Your task to perform on an android device: Open maps Image 0: 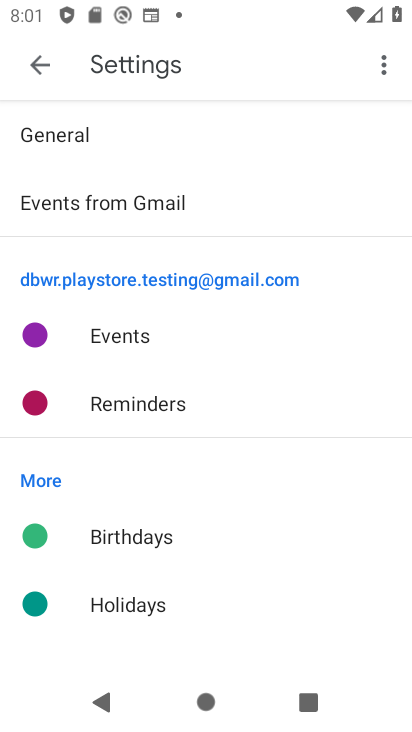
Step 0: press home button
Your task to perform on an android device: Open maps Image 1: 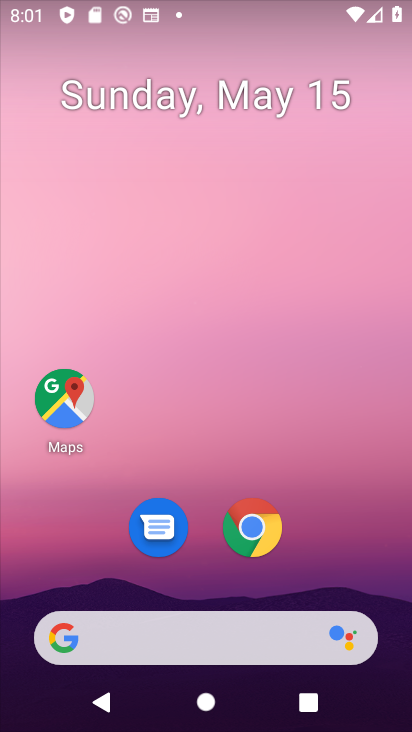
Step 1: click (87, 423)
Your task to perform on an android device: Open maps Image 2: 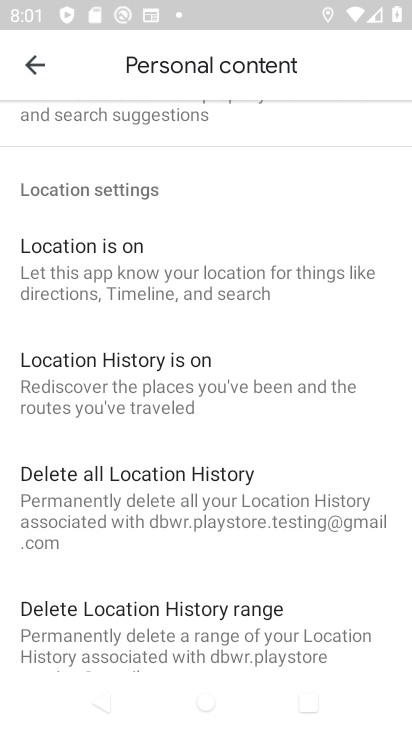
Step 2: drag from (258, 529) to (301, 210)
Your task to perform on an android device: Open maps Image 3: 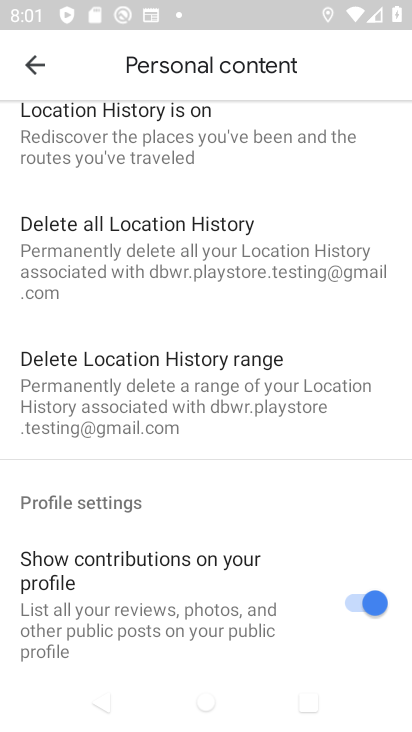
Step 3: click (32, 68)
Your task to perform on an android device: Open maps Image 4: 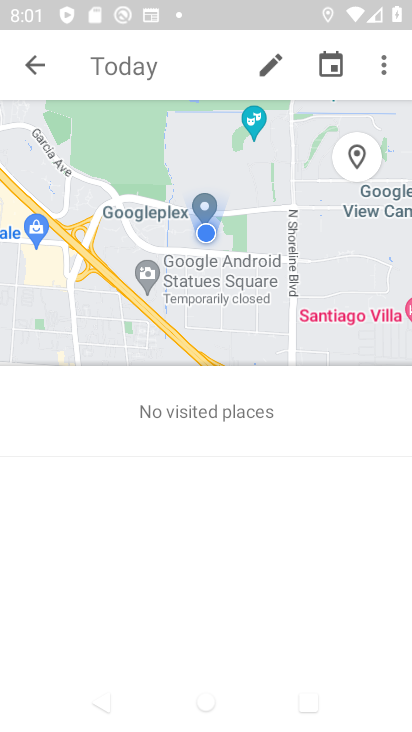
Step 4: click (32, 68)
Your task to perform on an android device: Open maps Image 5: 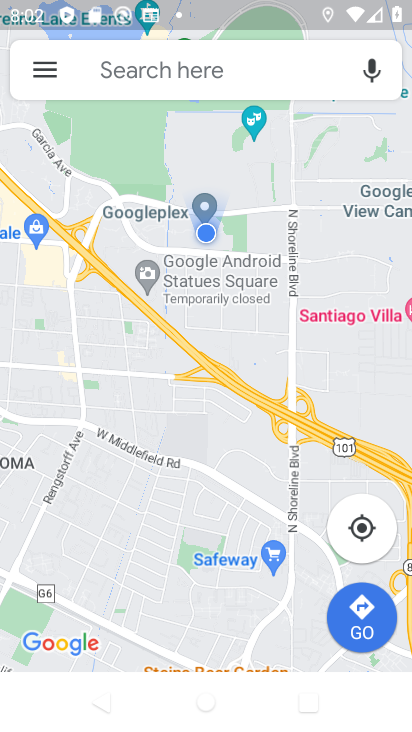
Step 5: task complete